Your task to perform on an android device: When is my next appointment? Image 0: 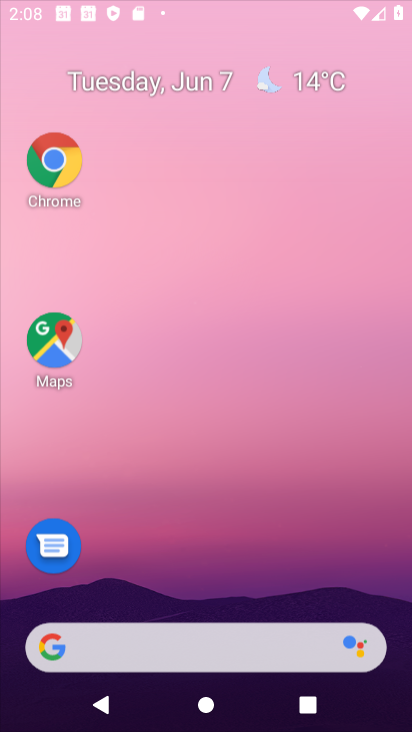
Step 0: click (381, 51)
Your task to perform on an android device: When is my next appointment? Image 1: 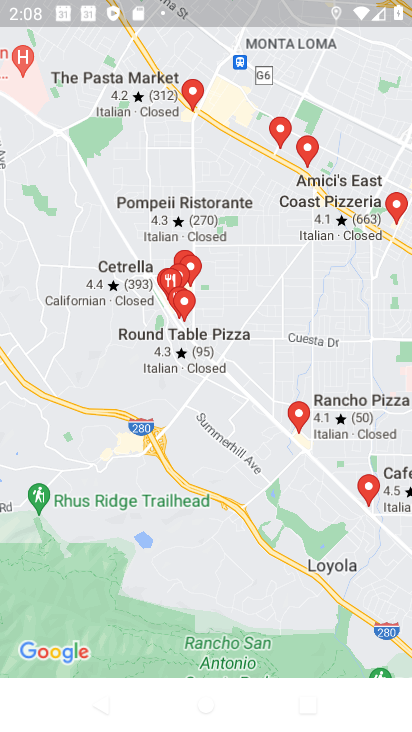
Step 1: press home button
Your task to perform on an android device: When is my next appointment? Image 2: 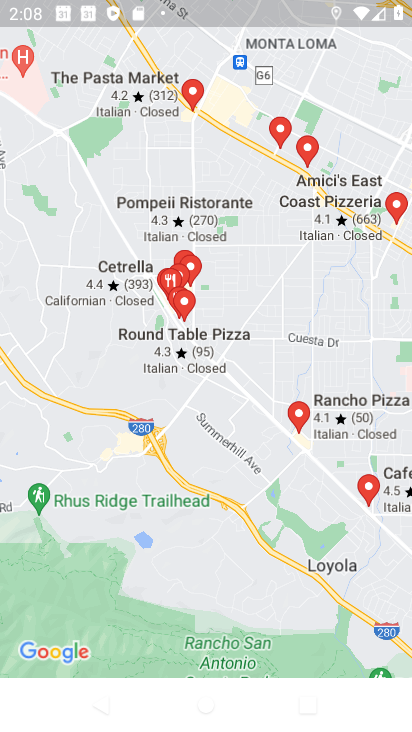
Step 2: drag from (366, 109) to (390, 43)
Your task to perform on an android device: When is my next appointment? Image 3: 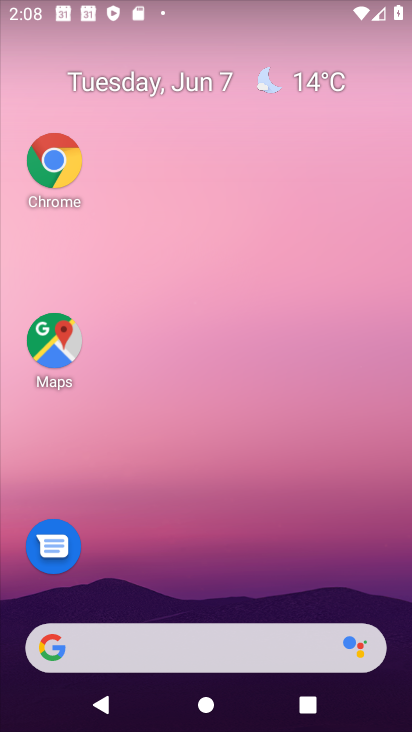
Step 3: drag from (200, 625) to (269, 66)
Your task to perform on an android device: When is my next appointment? Image 4: 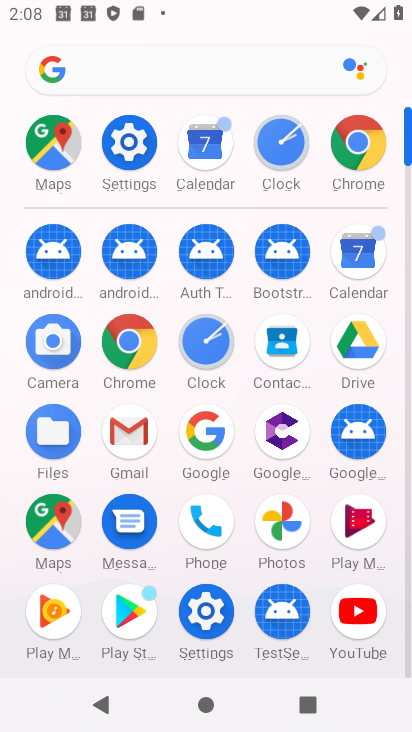
Step 4: click (354, 244)
Your task to perform on an android device: When is my next appointment? Image 5: 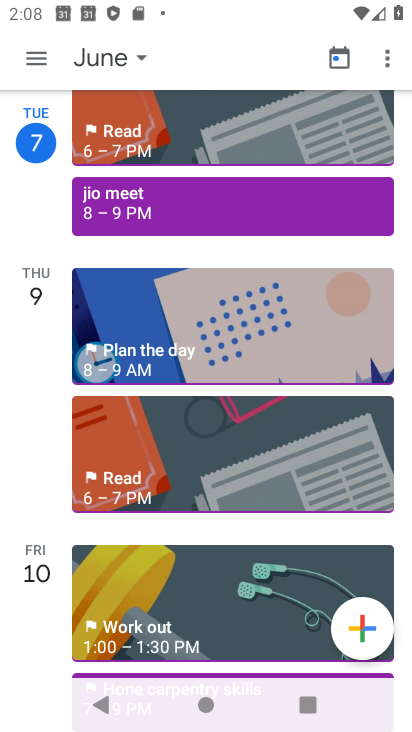
Step 5: click (141, 56)
Your task to perform on an android device: When is my next appointment? Image 6: 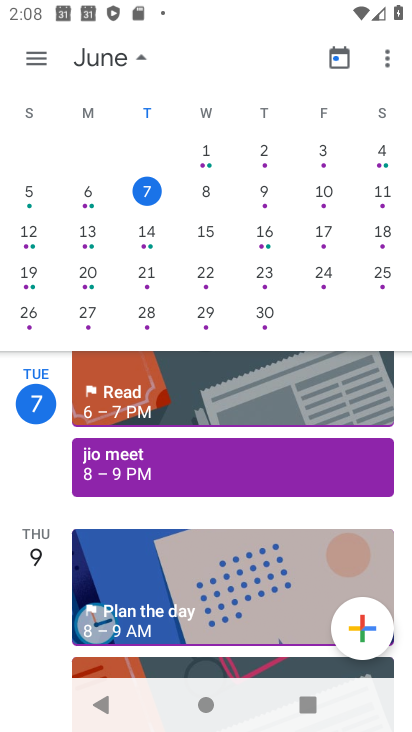
Step 6: click (145, 197)
Your task to perform on an android device: When is my next appointment? Image 7: 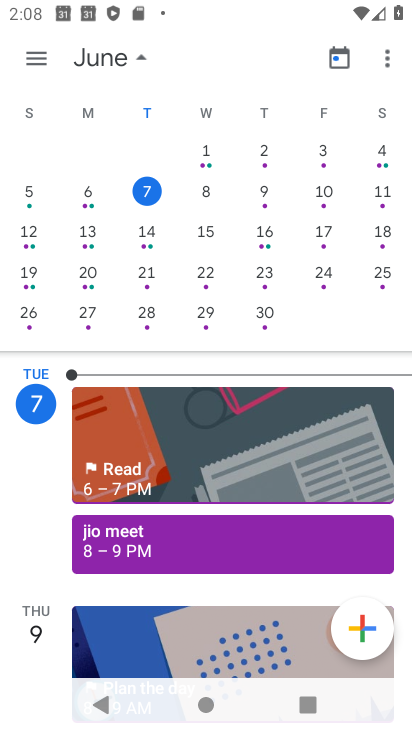
Step 7: click (145, 474)
Your task to perform on an android device: When is my next appointment? Image 8: 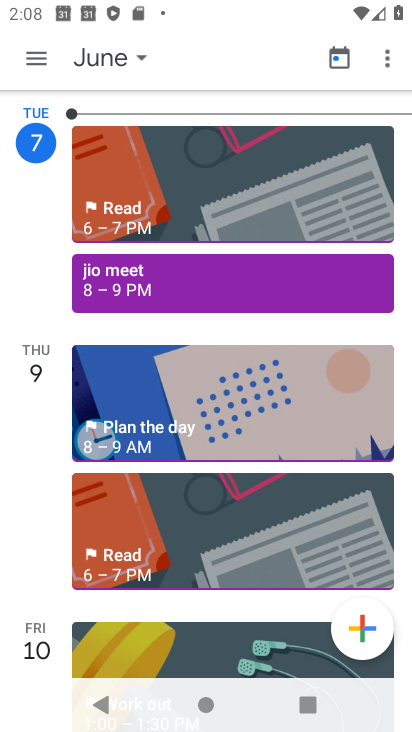
Step 8: click (157, 280)
Your task to perform on an android device: When is my next appointment? Image 9: 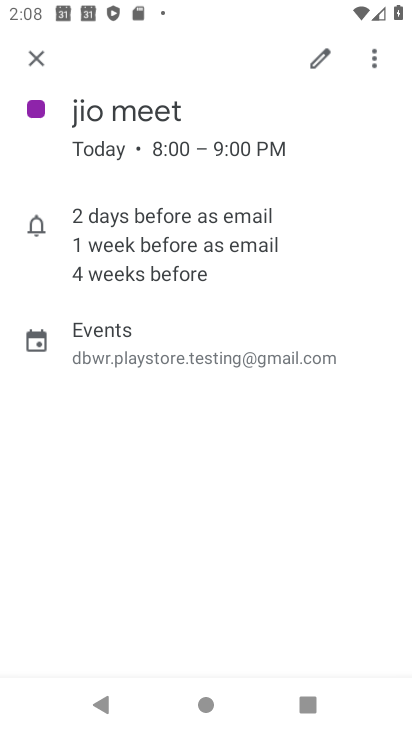
Step 9: task complete